Your task to perform on an android device: add a label to a message in the gmail app Image 0: 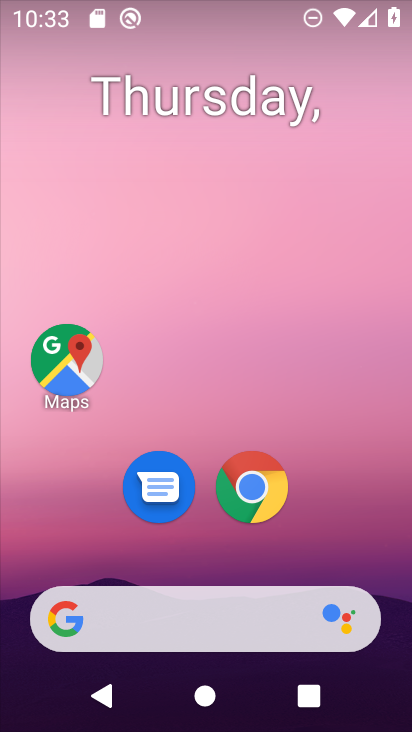
Step 0: drag from (344, 546) to (155, 12)
Your task to perform on an android device: add a label to a message in the gmail app Image 1: 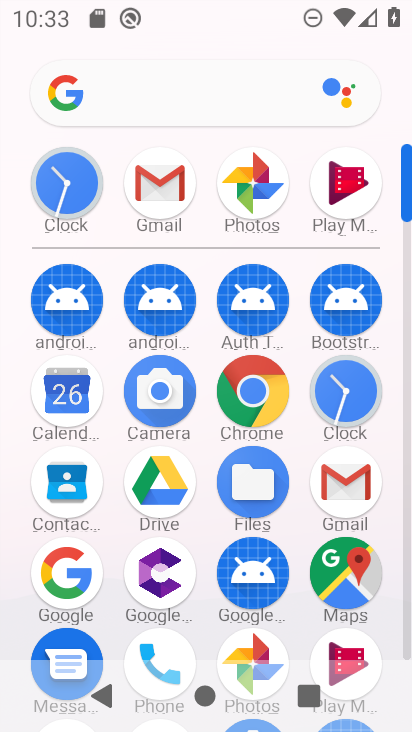
Step 1: click (167, 191)
Your task to perform on an android device: add a label to a message in the gmail app Image 2: 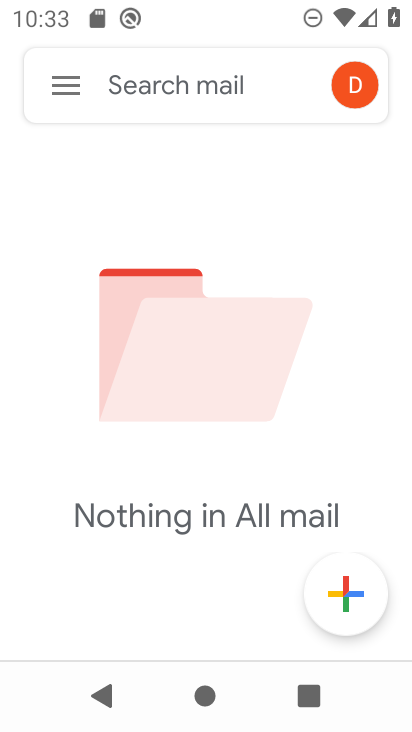
Step 2: click (54, 87)
Your task to perform on an android device: add a label to a message in the gmail app Image 3: 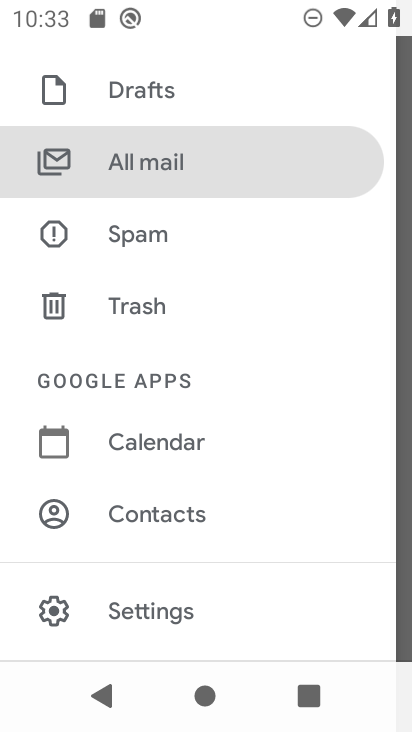
Step 3: click (145, 306)
Your task to perform on an android device: add a label to a message in the gmail app Image 4: 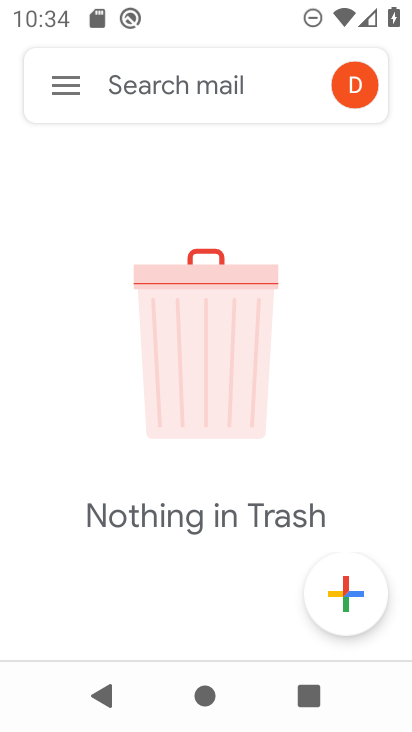
Step 4: click (73, 96)
Your task to perform on an android device: add a label to a message in the gmail app Image 5: 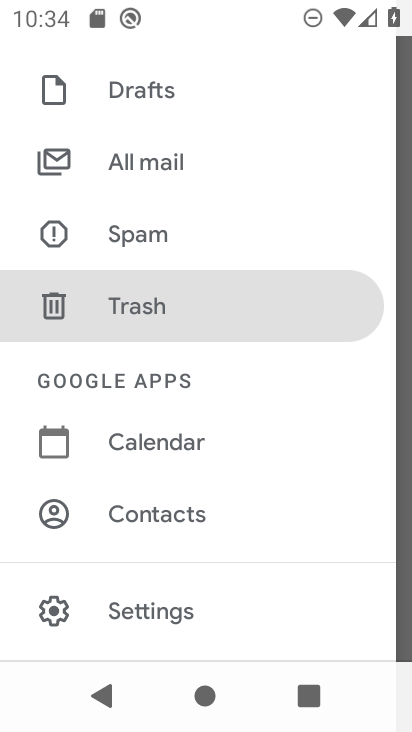
Step 5: task complete